Your task to perform on an android device: change the clock display to show seconds Image 0: 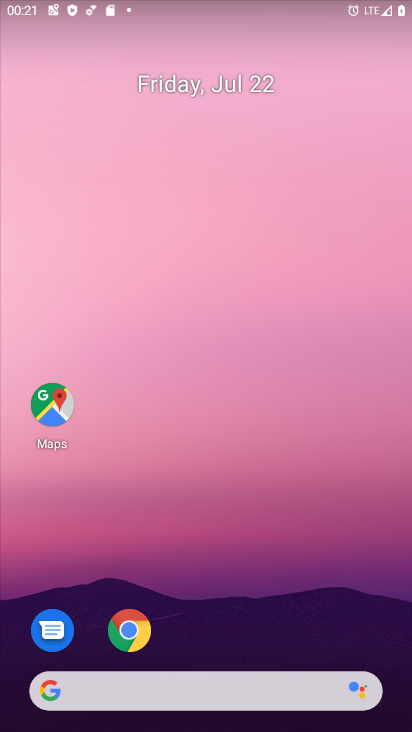
Step 0: drag from (150, 562) to (129, 96)
Your task to perform on an android device: change the clock display to show seconds Image 1: 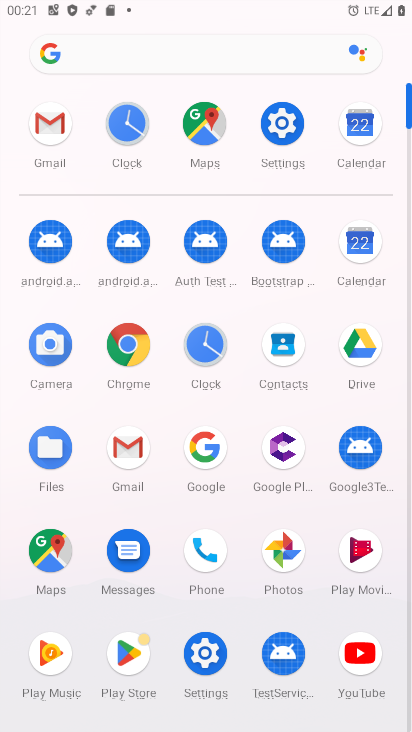
Step 1: click (128, 119)
Your task to perform on an android device: change the clock display to show seconds Image 2: 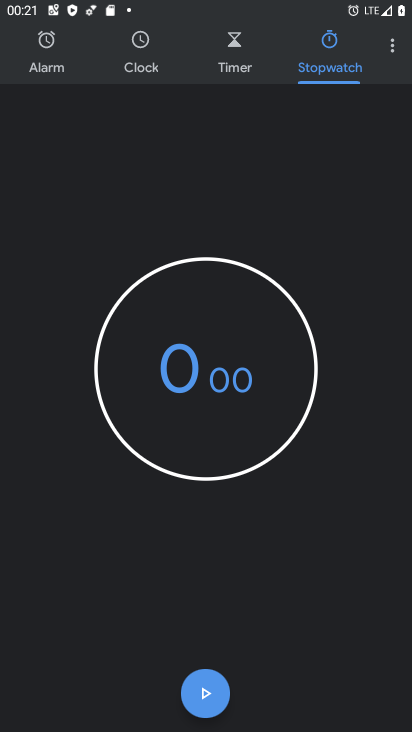
Step 2: click (388, 44)
Your task to perform on an android device: change the clock display to show seconds Image 3: 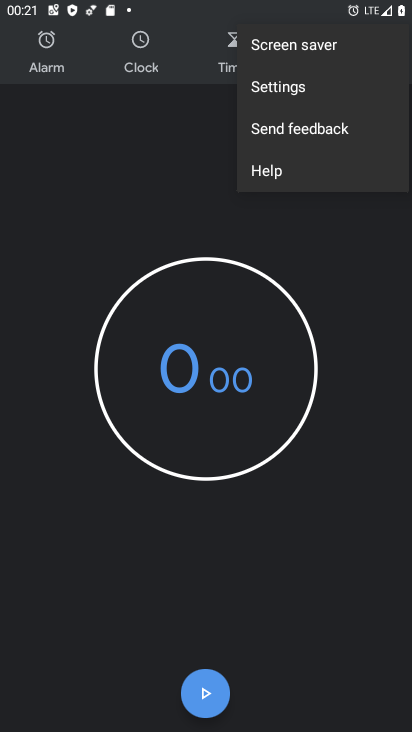
Step 3: click (306, 90)
Your task to perform on an android device: change the clock display to show seconds Image 4: 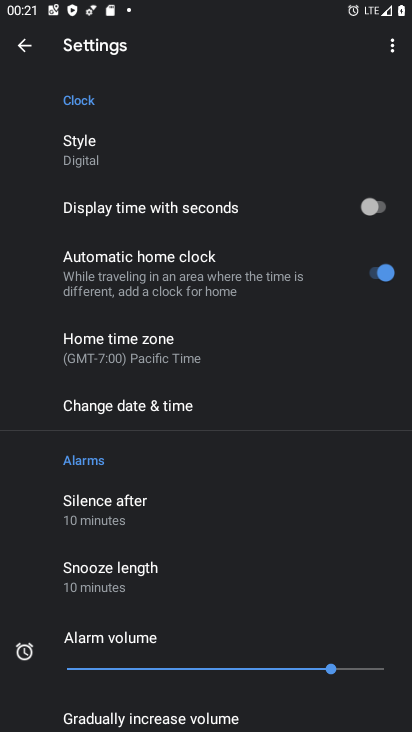
Step 4: click (374, 203)
Your task to perform on an android device: change the clock display to show seconds Image 5: 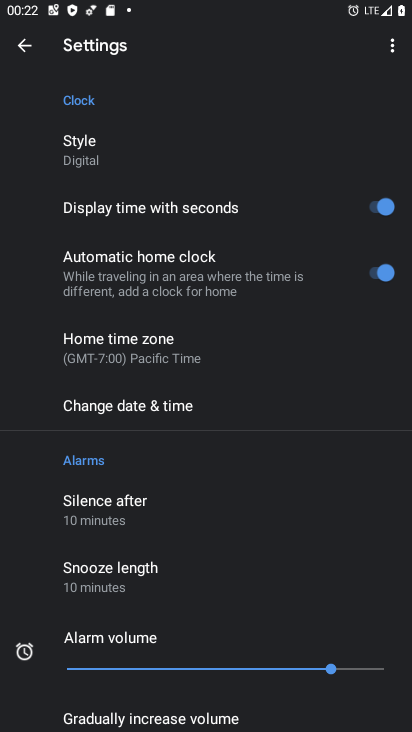
Step 5: task complete